Your task to perform on an android device: turn off translation in the chrome app Image 0: 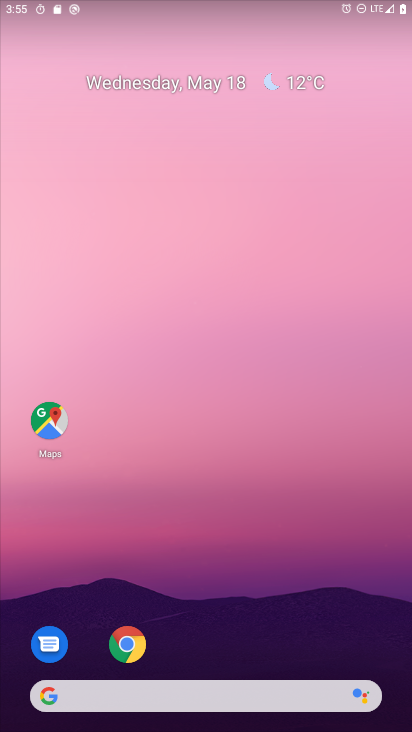
Step 0: click (119, 639)
Your task to perform on an android device: turn off translation in the chrome app Image 1: 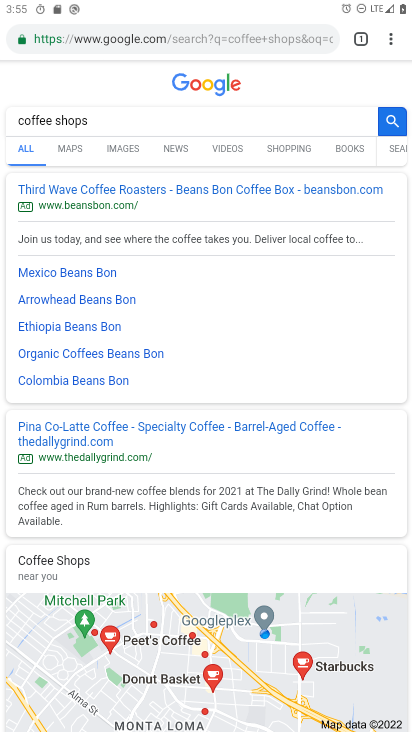
Step 1: click (388, 37)
Your task to perform on an android device: turn off translation in the chrome app Image 2: 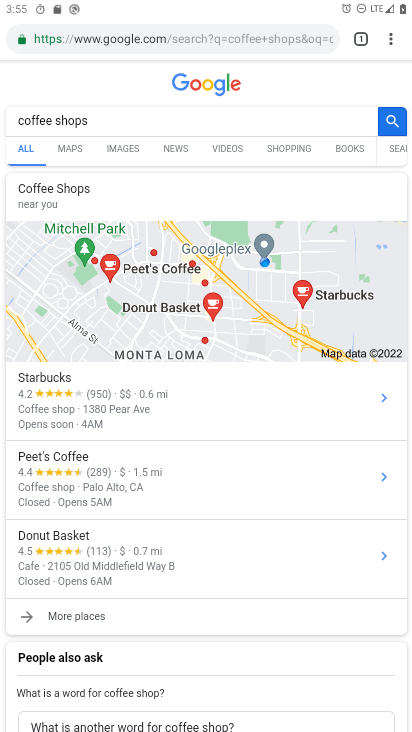
Step 2: click (388, 36)
Your task to perform on an android device: turn off translation in the chrome app Image 3: 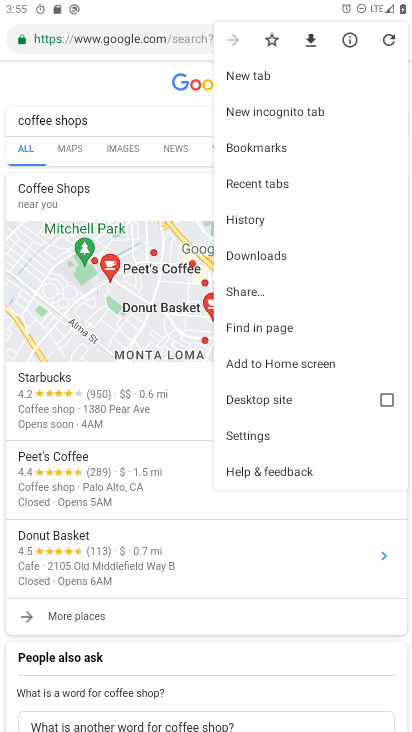
Step 3: click (252, 434)
Your task to perform on an android device: turn off translation in the chrome app Image 4: 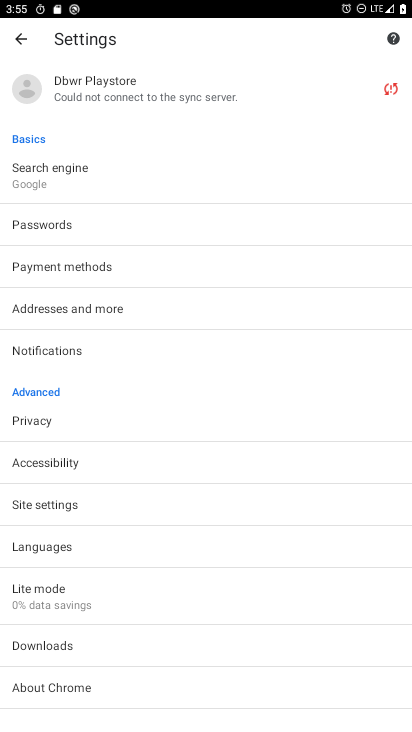
Step 4: click (75, 544)
Your task to perform on an android device: turn off translation in the chrome app Image 5: 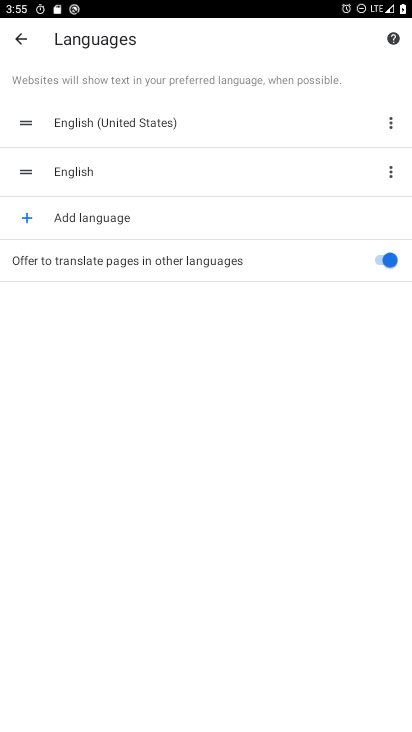
Step 5: click (373, 257)
Your task to perform on an android device: turn off translation in the chrome app Image 6: 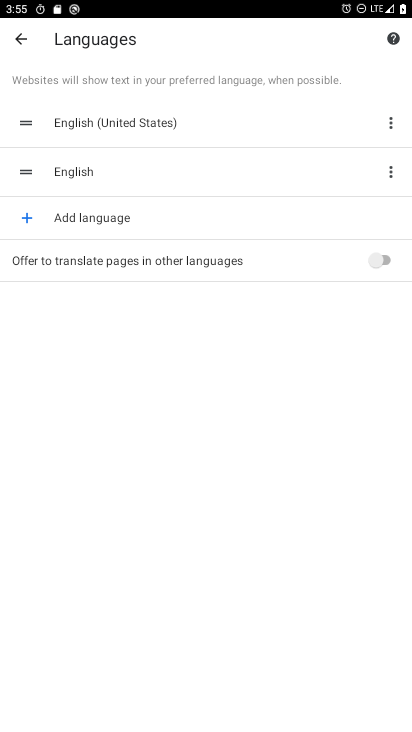
Step 6: task complete